Your task to perform on an android device: Open maps Image 0: 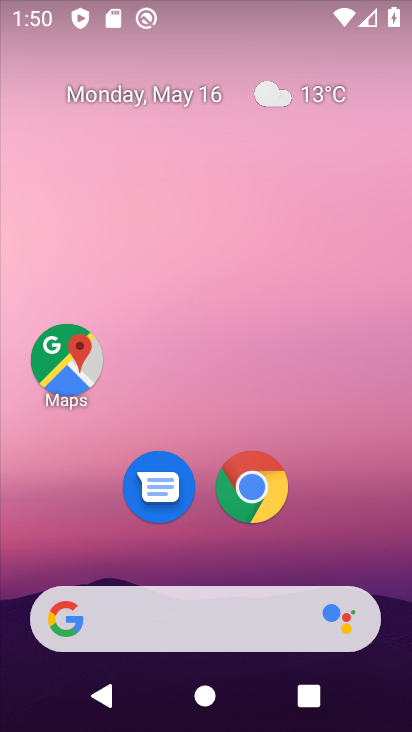
Step 0: drag from (47, 555) to (87, 121)
Your task to perform on an android device: Open maps Image 1: 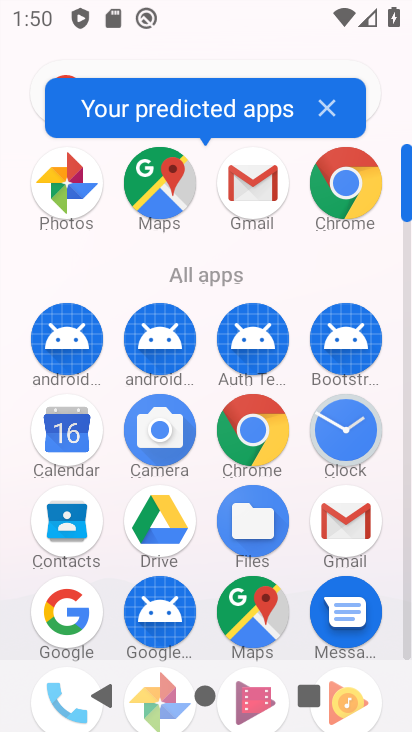
Step 1: click (152, 182)
Your task to perform on an android device: Open maps Image 2: 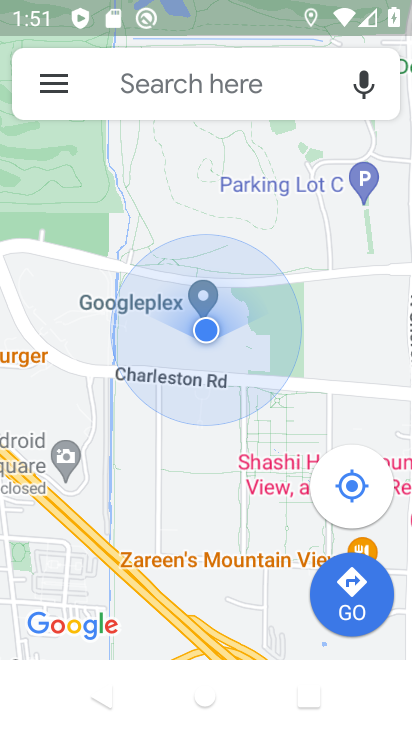
Step 2: task complete